Your task to perform on an android device: delete browsing data in the chrome app Image 0: 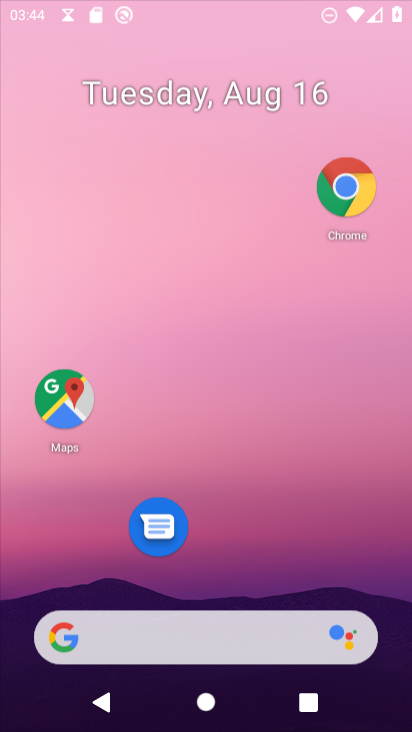
Step 0: press home button
Your task to perform on an android device: delete browsing data in the chrome app Image 1: 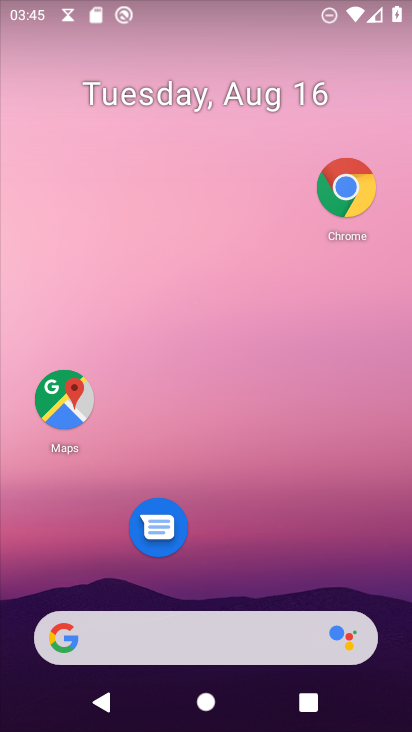
Step 1: drag from (223, 580) to (257, 148)
Your task to perform on an android device: delete browsing data in the chrome app Image 2: 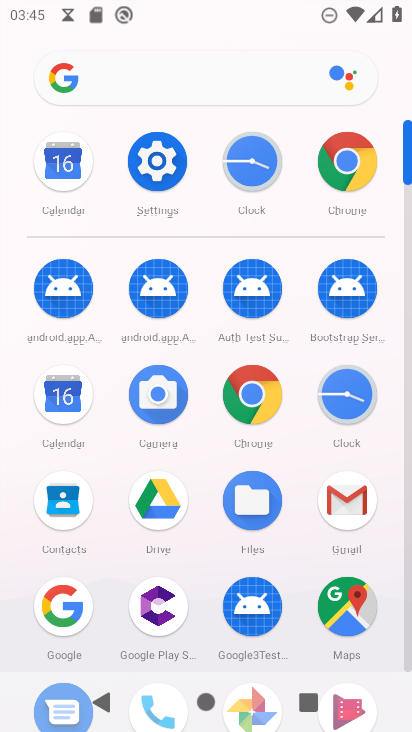
Step 2: click (248, 381)
Your task to perform on an android device: delete browsing data in the chrome app Image 3: 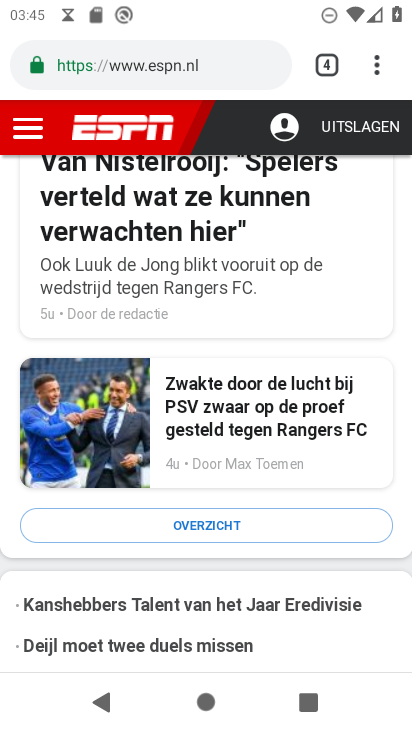
Step 3: click (375, 61)
Your task to perform on an android device: delete browsing data in the chrome app Image 4: 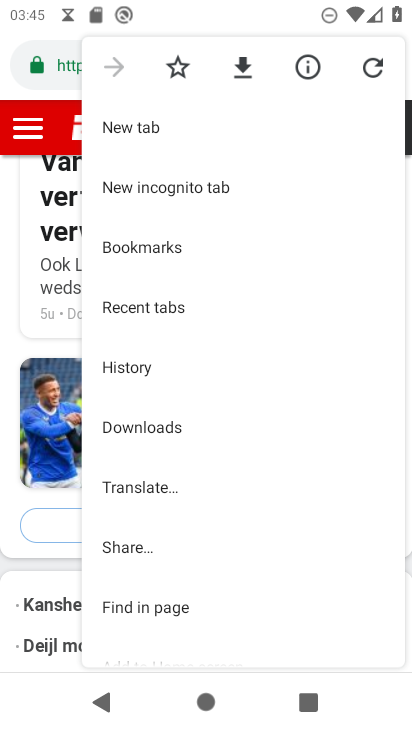
Step 4: click (160, 367)
Your task to perform on an android device: delete browsing data in the chrome app Image 5: 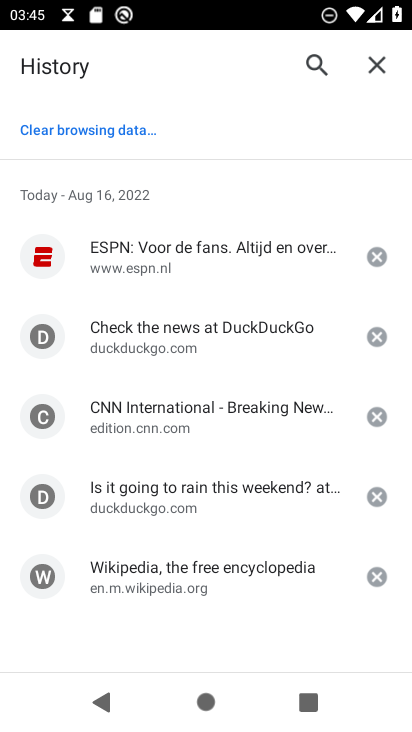
Step 5: click (78, 132)
Your task to perform on an android device: delete browsing data in the chrome app Image 6: 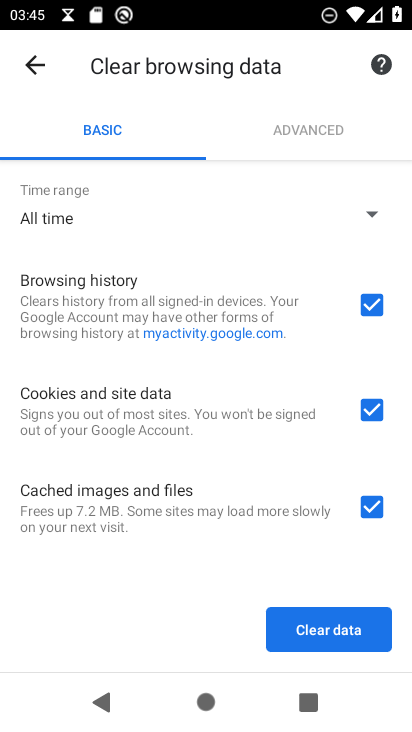
Step 6: click (368, 407)
Your task to perform on an android device: delete browsing data in the chrome app Image 7: 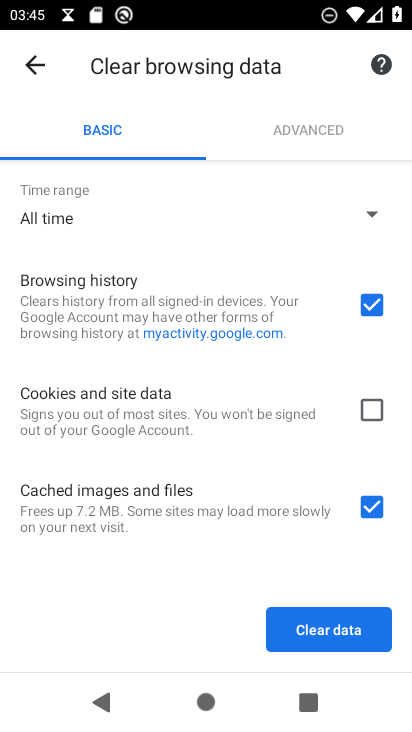
Step 7: click (363, 508)
Your task to perform on an android device: delete browsing data in the chrome app Image 8: 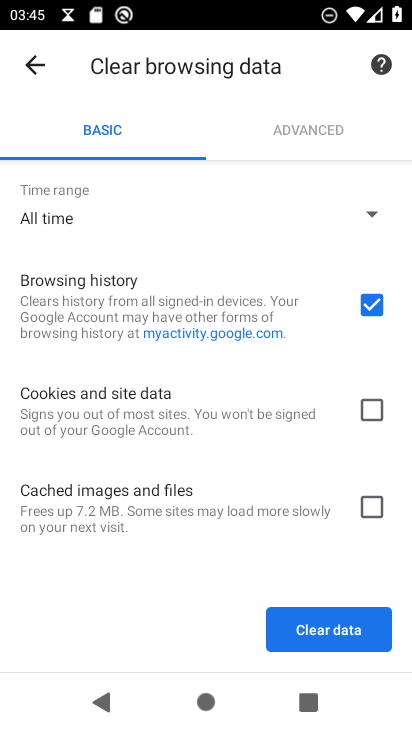
Step 8: click (329, 633)
Your task to perform on an android device: delete browsing data in the chrome app Image 9: 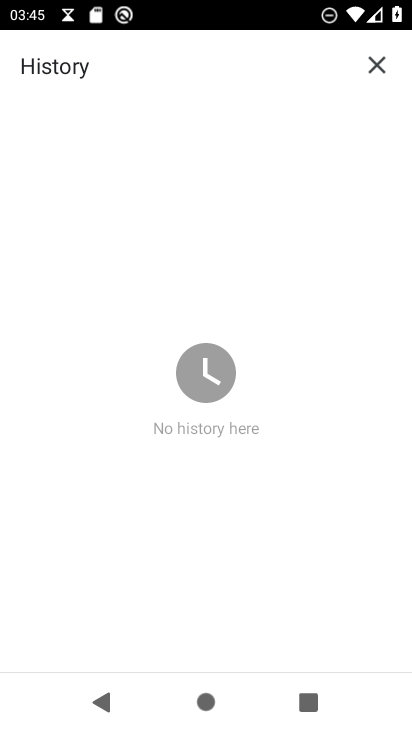
Step 9: task complete